Your task to perform on an android device: turn off smart reply in the gmail app Image 0: 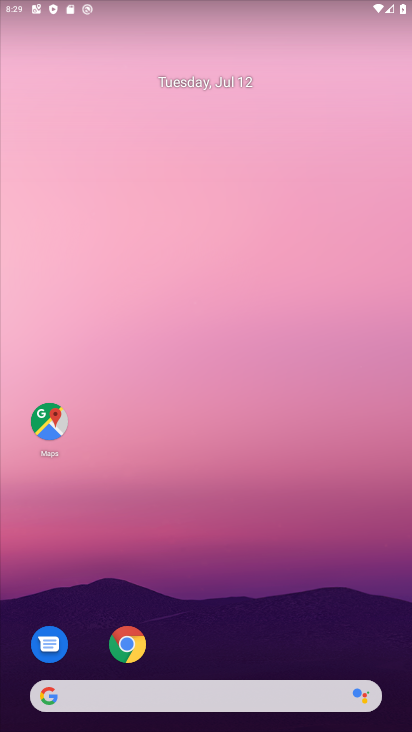
Step 0: drag from (192, 651) to (169, 67)
Your task to perform on an android device: turn off smart reply in the gmail app Image 1: 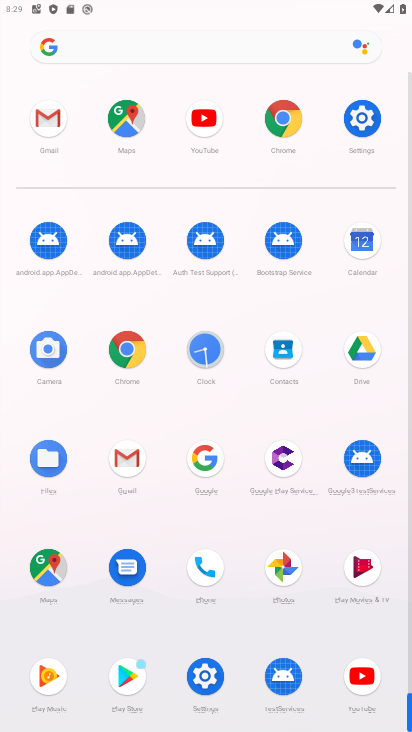
Step 1: click (114, 456)
Your task to perform on an android device: turn off smart reply in the gmail app Image 2: 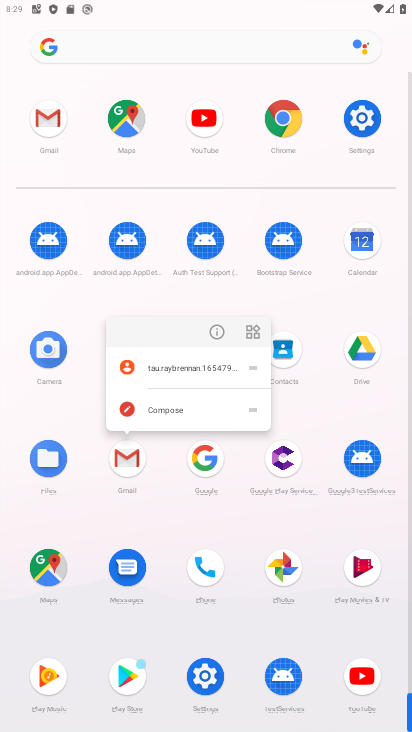
Step 2: click (209, 327)
Your task to perform on an android device: turn off smart reply in the gmail app Image 3: 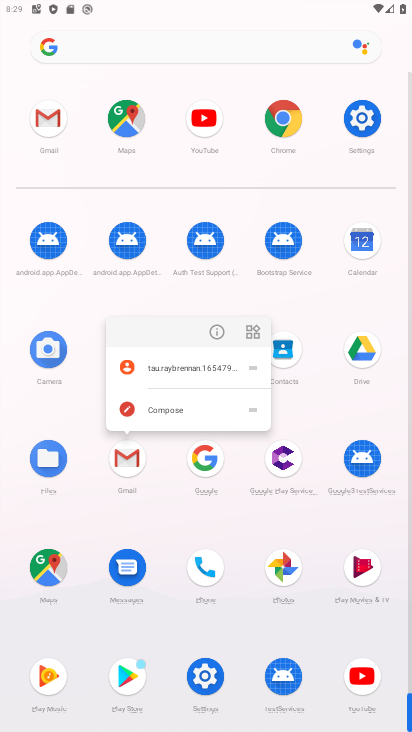
Step 3: click (208, 329)
Your task to perform on an android device: turn off smart reply in the gmail app Image 4: 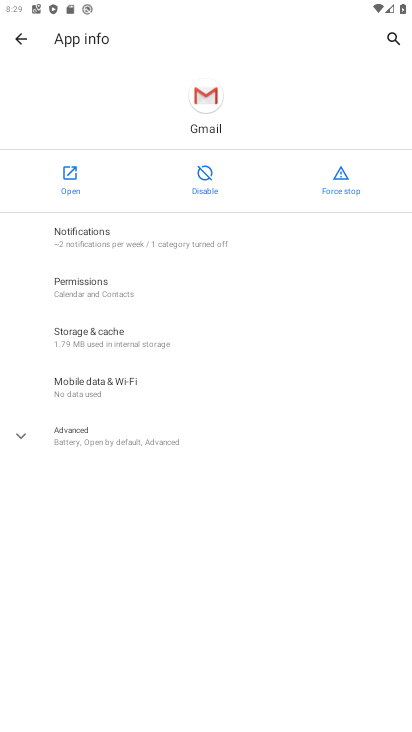
Step 4: click (67, 183)
Your task to perform on an android device: turn off smart reply in the gmail app Image 5: 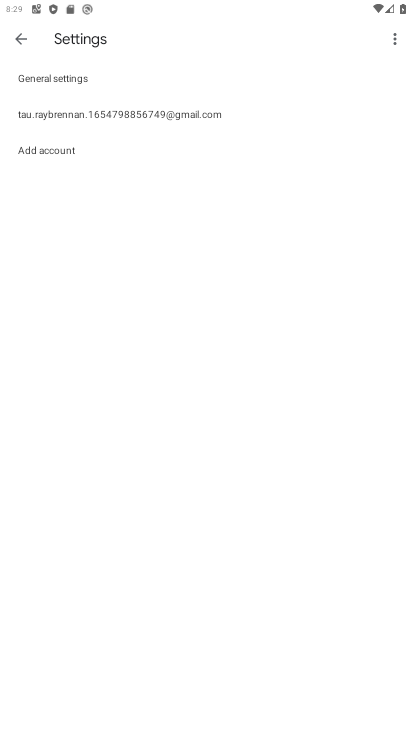
Step 5: click (147, 107)
Your task to perform on an android device: turn off smart reply in the gmail app Image 6: 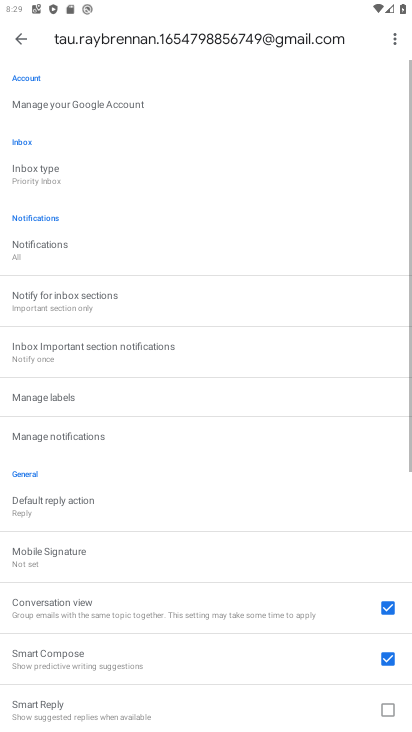
Step 6: task complete